Your task to perform on an android device: Go to Google maps Image 0: 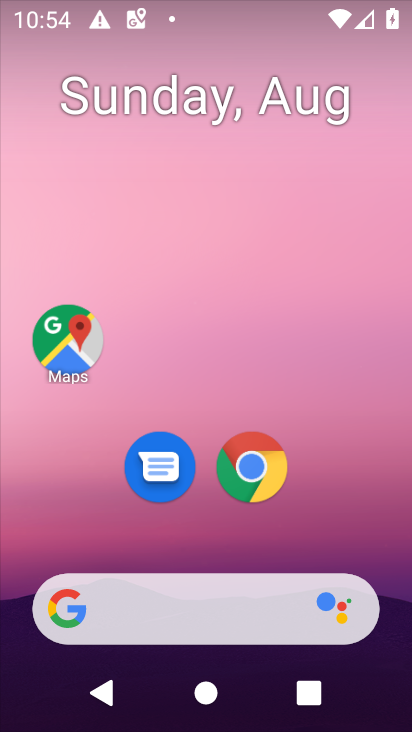
Step 0: drag from (167, 696) to (201, 180)
Your task to perform on an android device: Go to Google maps Image 1: 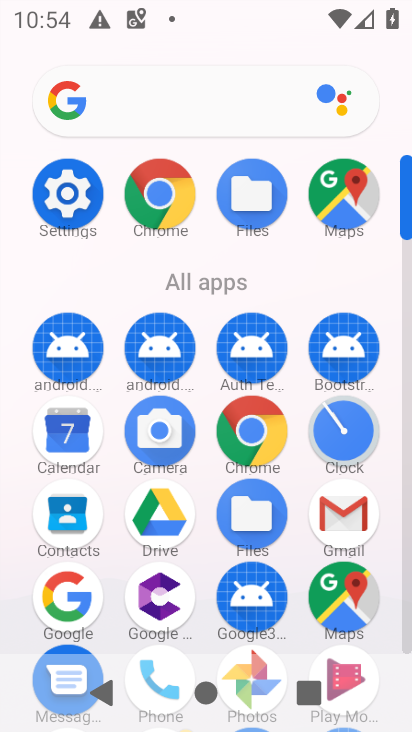
Step 1: click (341, 600)
Your task to perform on an android device: Go to Google maps Image 2: 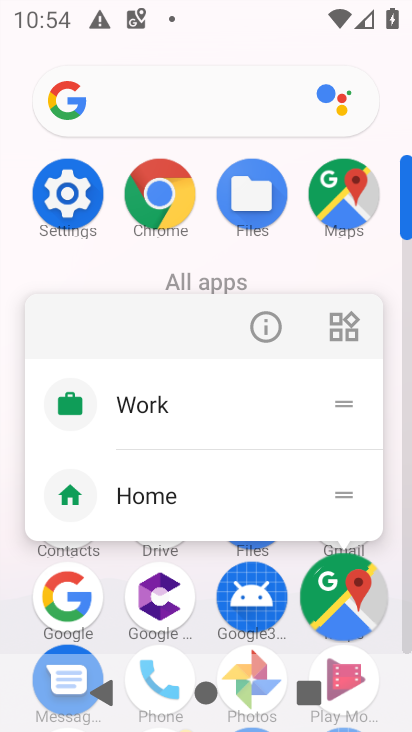
Step 2: click (342, 602)
Your task to perform on an android device: Go to Google maps Image 3: 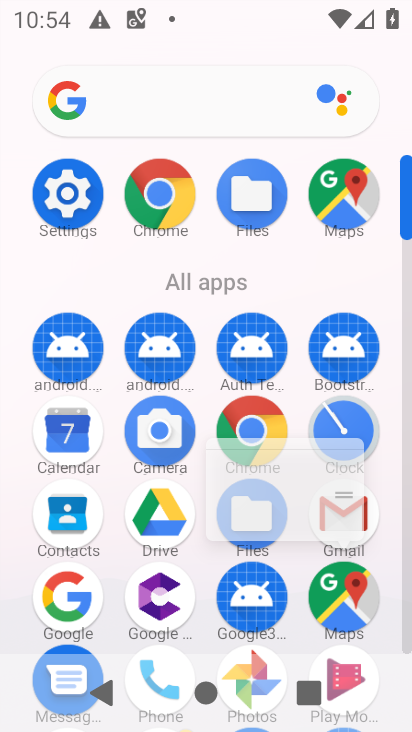
Step 3: click (342, 602)
Your task to perform on an android device: Go to Google maps Image 4: 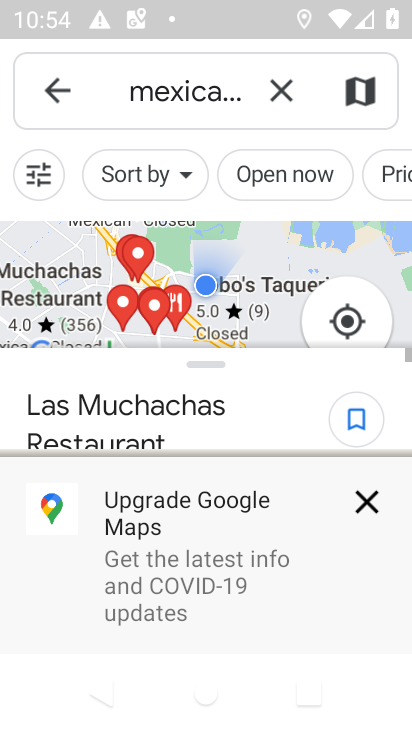
Step 4: task complete